Your task to perform on an android device: turn on the 12-hour format for clock Image 0: 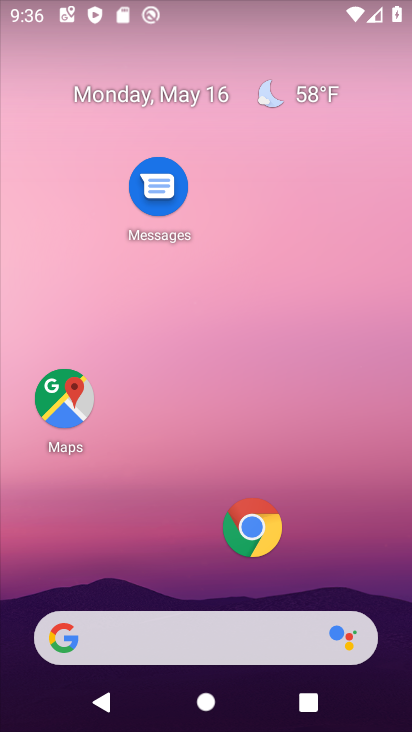
Step 0: drag from (199, 529) to (192, 82)
Your task to perform on an android device: turn on the 12-hour format for clock Image 1: 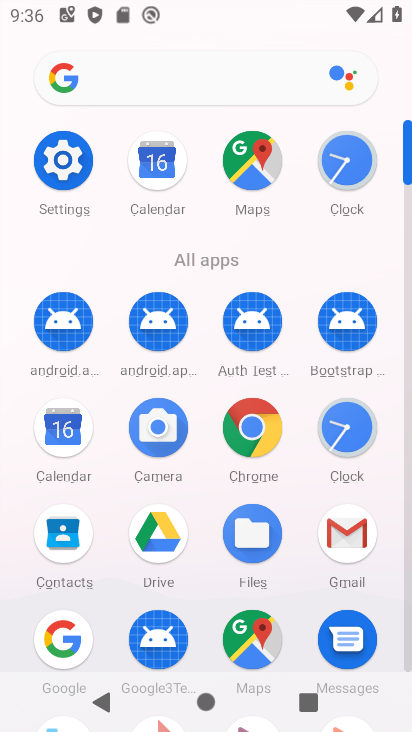
Step 1: click (345, 427)
Your task to perform on an android device: turn on the 12-hour format for clock Image 2: 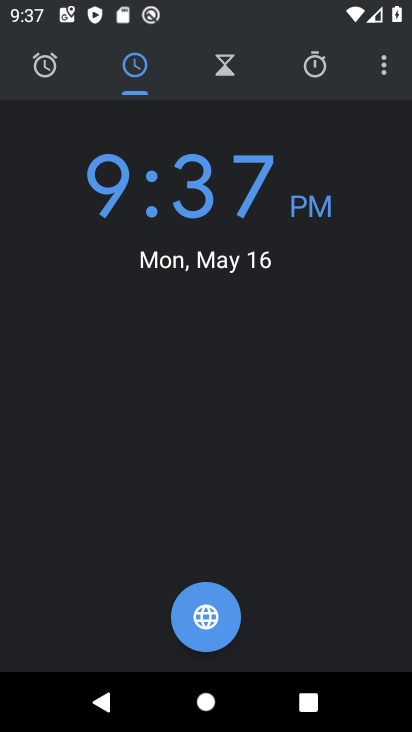
Step 2: click (369, 55)
Your task to perform on an android device: turn on the 12-hour format for clock Image 3: 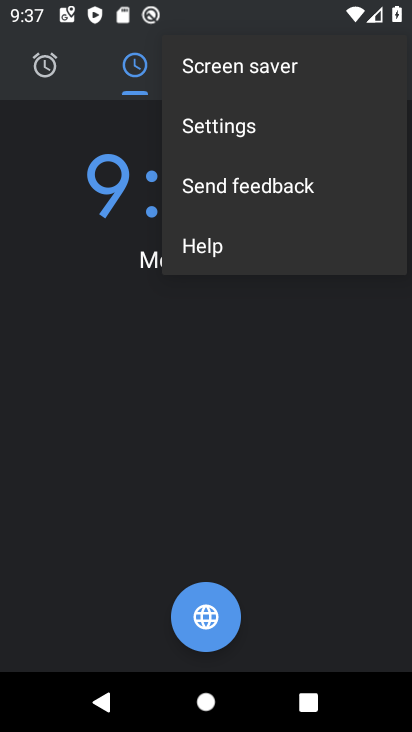
Step 3: click (194, 128)
Your task to perform on an android device: turn on the 12-hour format for clock Image 4: 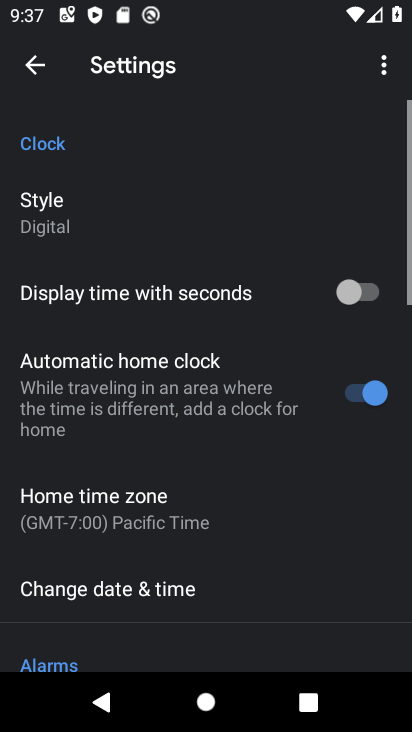
Step 4: click (152, 580)
Your task to perform on an android device: turn on the 12-hour format for clock Image 5: 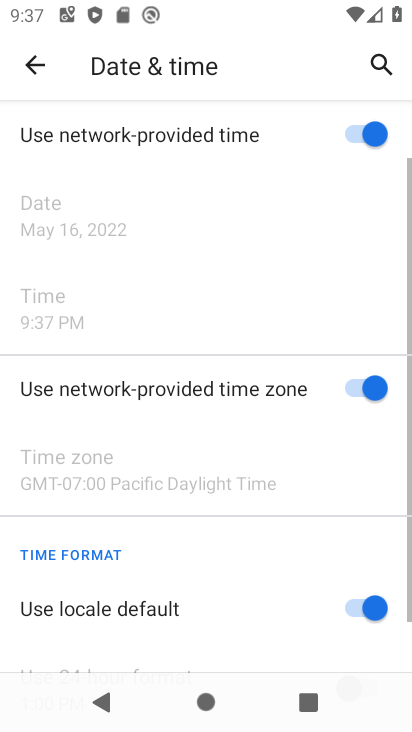
Step 5: task complete